Your task to perform on an android device: Search for seafood restaurants on Google Maps Image 0: 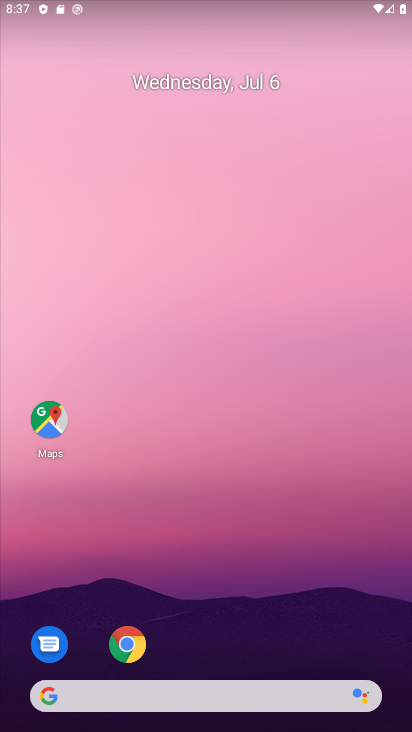
Step 0: drag from (211, 672) to (157, 51)
Your task to perform on an android device: Search for seafood restaurants on Google Maps Image 1: 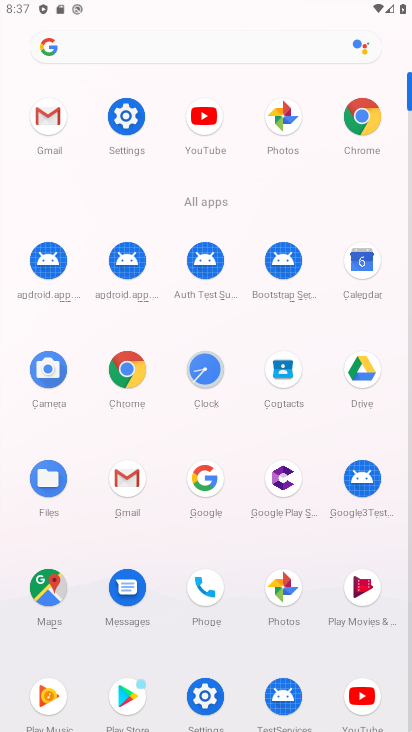
Step 1: click (60, 573)
Your task to perform on an android device: Search for seafood restaurants on Google Maps Image 2: 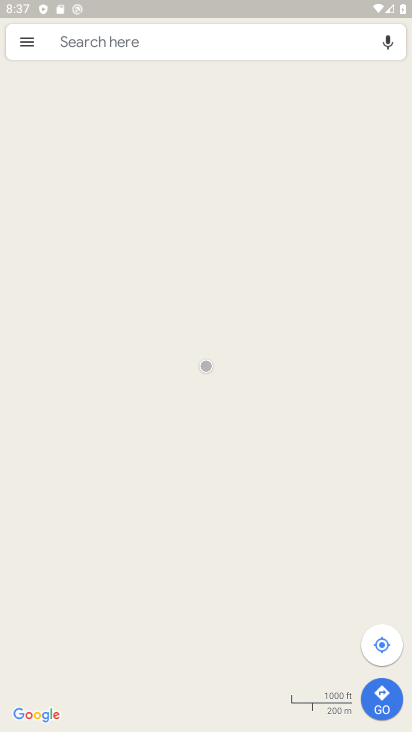
Step 2: click (168, 41)
Your task to perform on an android device: Search for seafood restaurants on Google Maps Image 3: 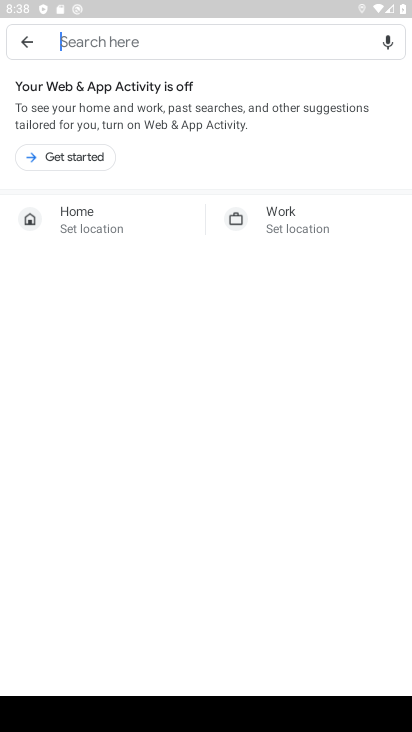
Step 3: type "seafood restaurants"
Your task to perform on an android device: Search for seafood restaurants on Google Maps Image 4: 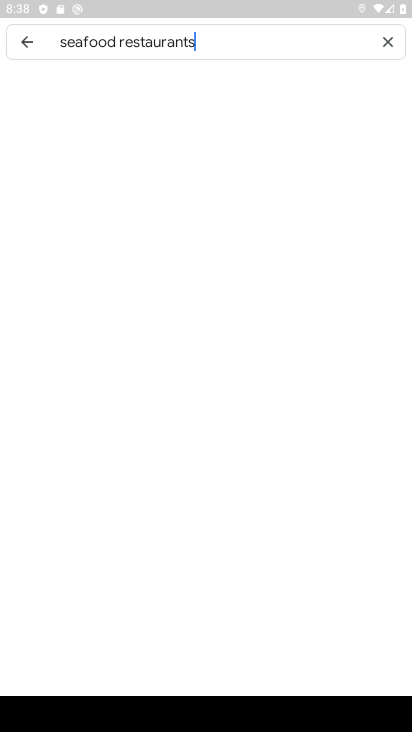
Step 4: type ""
Your task to perform on an android device: Search for seafood restaurants on Google Maps Image 5: 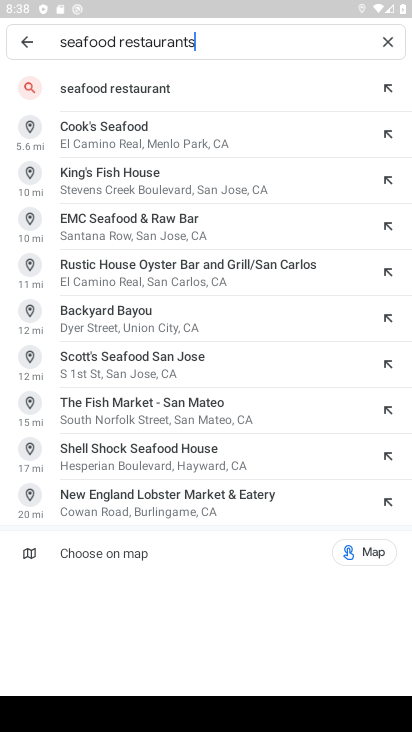
Step 5: click (78, 89)
Your task to perform on an android device: Search for seafood restaurants on Google Maps Image 6: 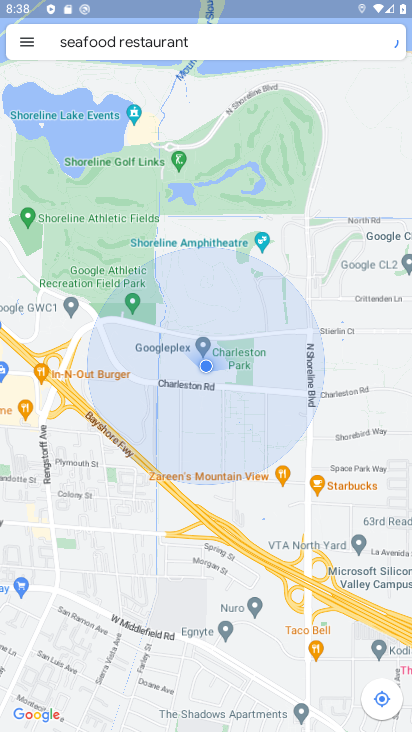
Step 6: task complete